Your task to perform on an android device: Find coffee shops on Maps Image 0: 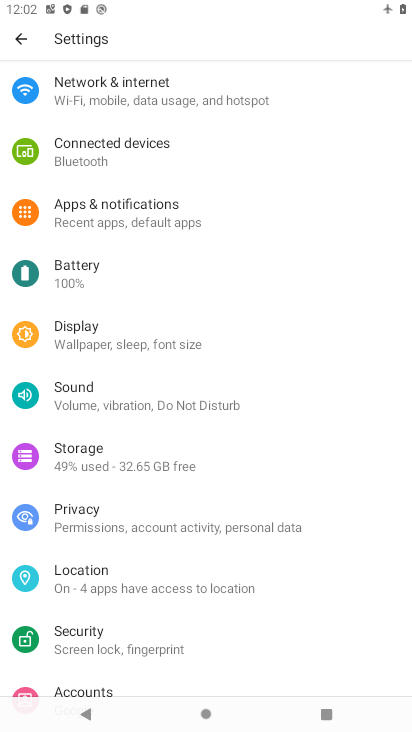
Step 0: press home button
Your task to perform on an android device: Find coffee shops on Maps Image 1: 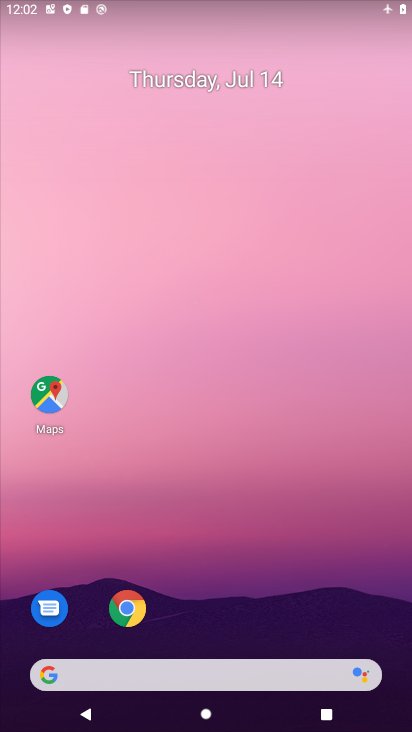
Step 1: click (48, 392)
Your task to perform on an android device: Find coffee shops on Maps Image 2: 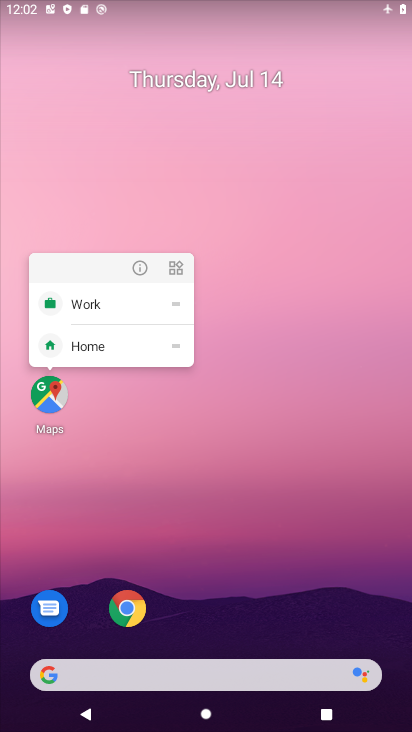
Step 2: click (48, 392)
Your task to perform on an android device: Find coffee shops on Maps Image 3: 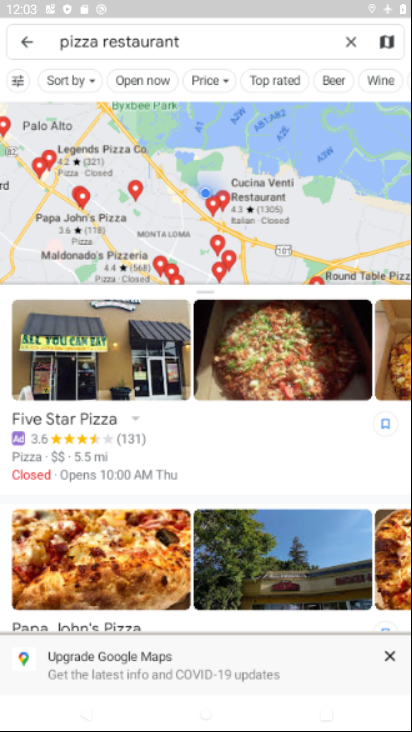
Step 3: click (350, 36)
Your task to perform on an android device: Find coffee shops on Maps Image 4: 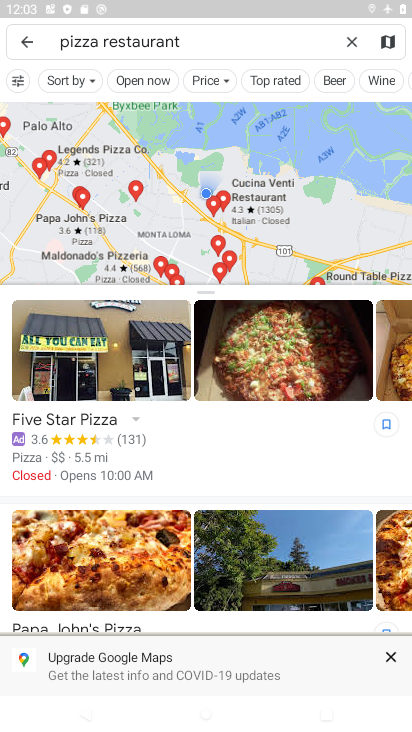
Step 4: click (352, 39)
Your task to perform on an android device: Find coffee shops on Maps Image 5: 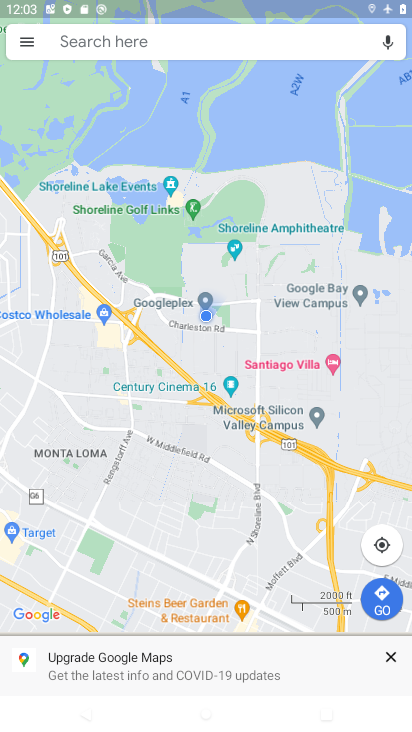
Step 5: click (248, 51)
Your task to perform on an android device: Find coffee shops on Maps Image 6: 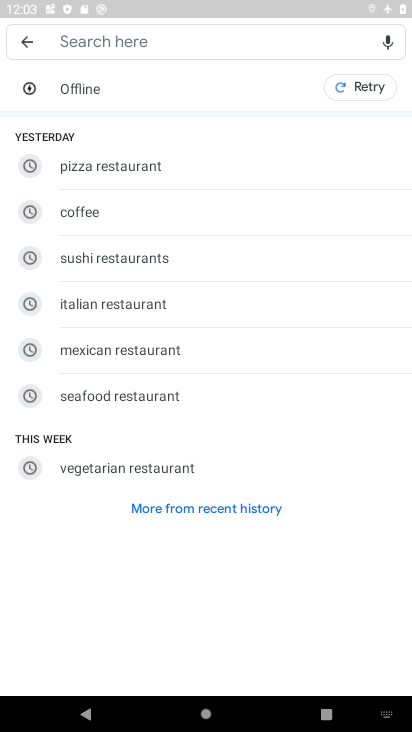
Step 6: type "coffee shops"
Your task to perform on an android device: Find coffee shops on Maps Image 7: 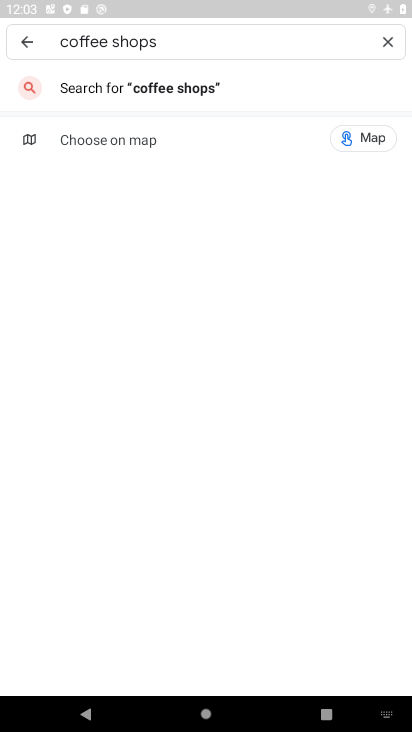
Step 7: press enter
Your task to perform on an android device: Find coffee shops on Maps Image 8: 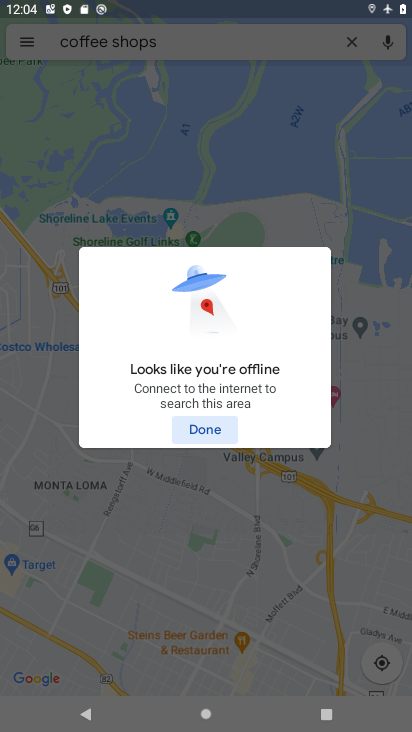
Step 8: task complete